Your task to perform on an android device: Search for seafood restaurants on Google Maps Image 0: 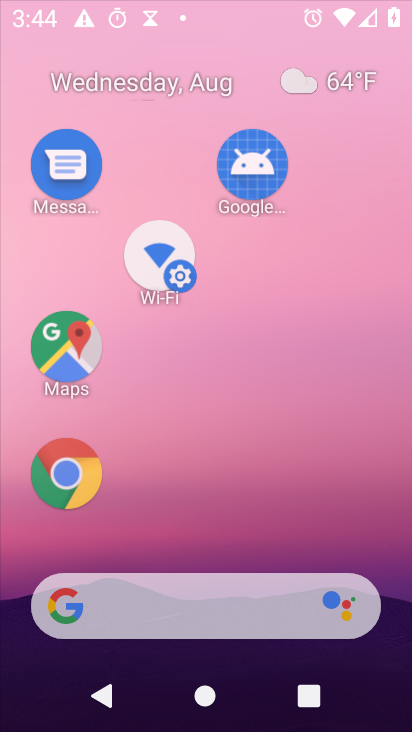
Step 0: press home button
Your task to perform on an android device: Search for seafood restaurants on Google Maps Image 1: 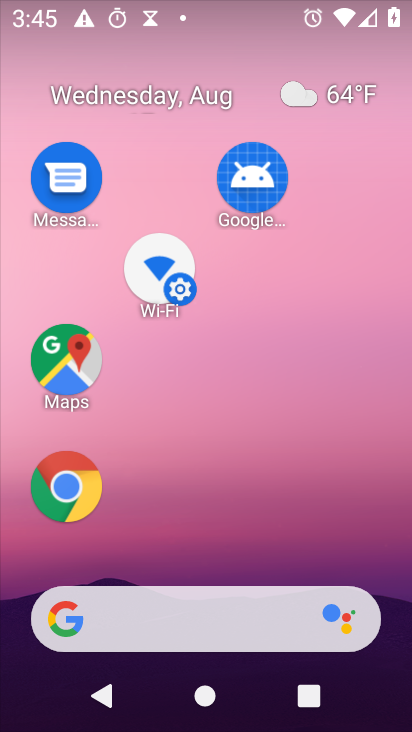
Step 1: click (53, 357)
Your task to perform on an android device: Search for seafood restaurants on Google Maps Image 2: 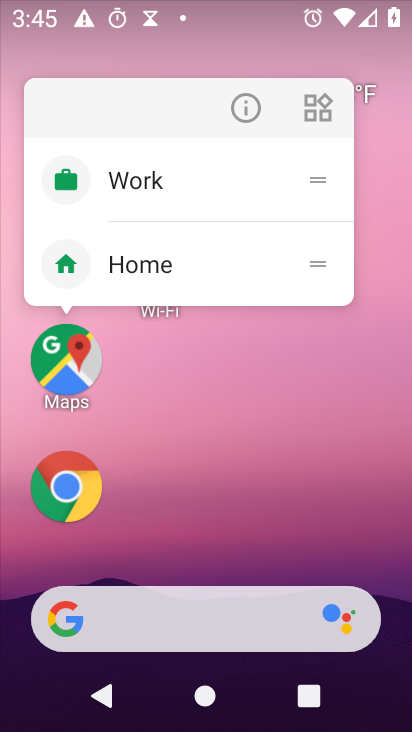
Step 2: click (57, 359)
Your task to perform on an android device: Search for seafood restaurants on Google Maps Image 3: 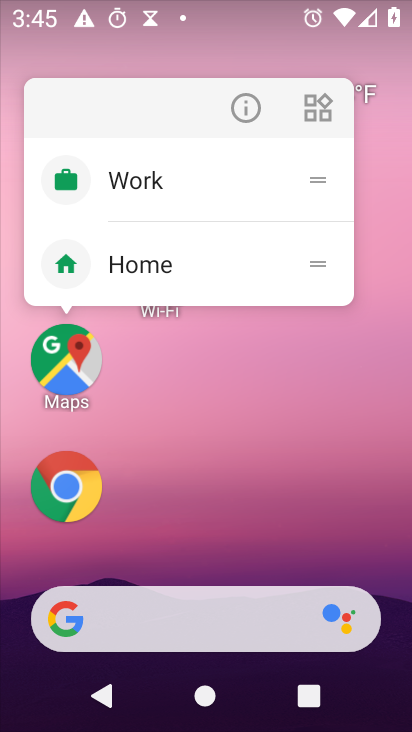
Step 3: click (57, 359)
Your task to perform on an android device: Search for seafood restaurants on Google Maps Image 4: 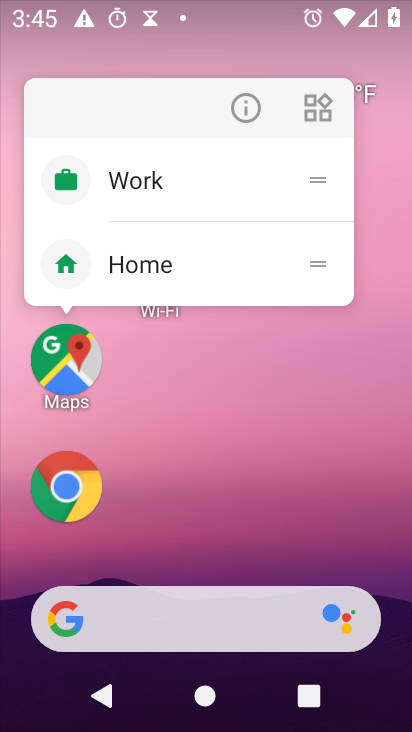
Step 4: click (66, 344)
Your task to perform on an android device: Search for seafood restaurants on Google Maps Image 5: 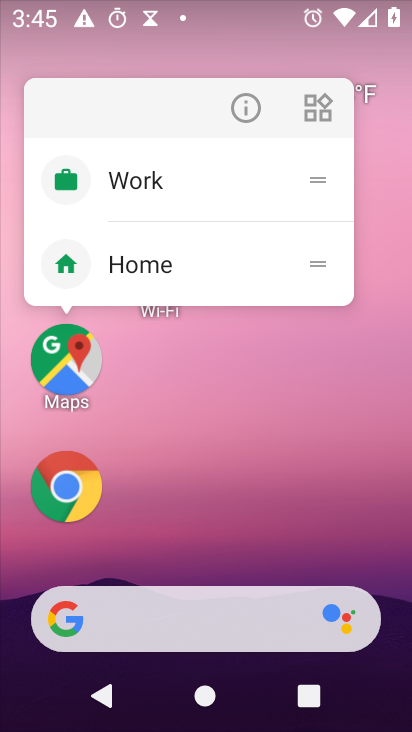
Step 5: click (66, 344)
Your task to perform on an android device: Search for seafood restaurants on Google Maps Image 6: 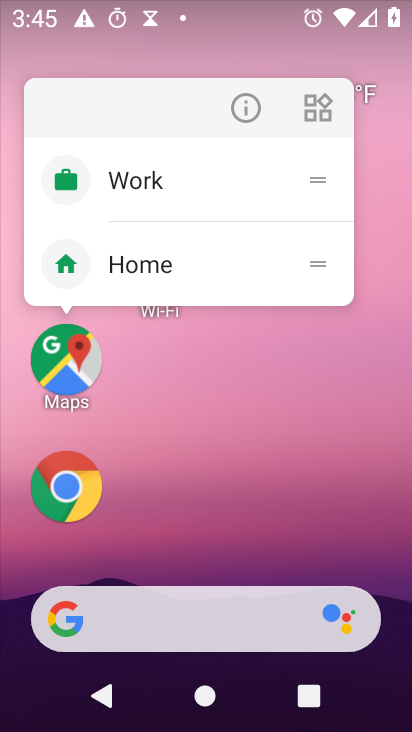
Step 6: click (60, 389)
Your task to perform on an android device: Search for seafood restaurants on Google Maps Image 7: 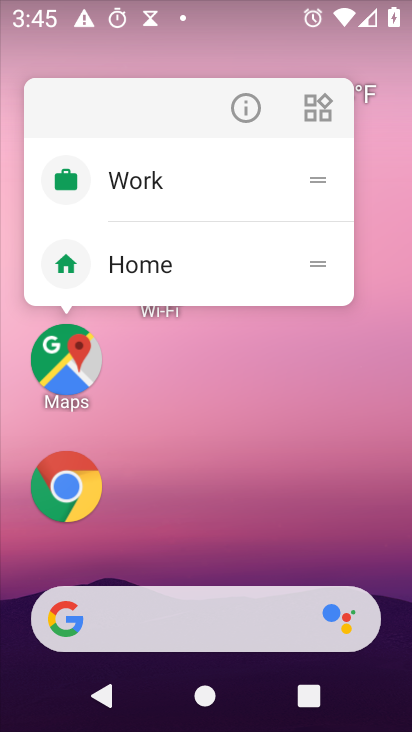
Step 7: click (60, 389)
Your task to perform on an android device: Search for seafood restaurants on Google Maps Image 8: 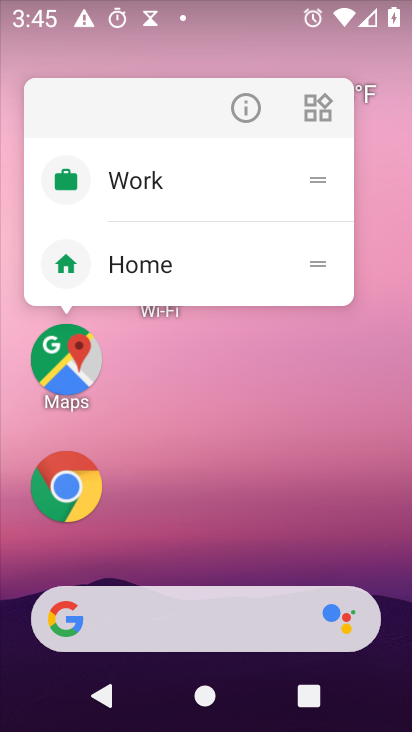
Step 8: click (60, 389)
Your task to perform on an android device: Search for seafood restaurants on Google Maps Image 9: 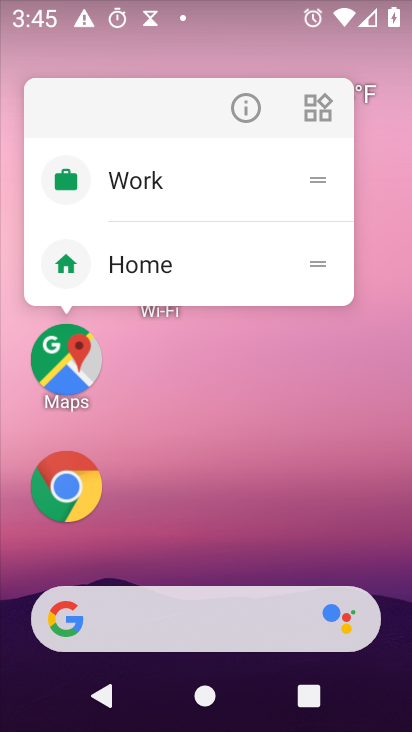
Step 9: click (60, 389)
Your task to perform on an android device: Search for seafood restaurants on Google Maps Image 10: 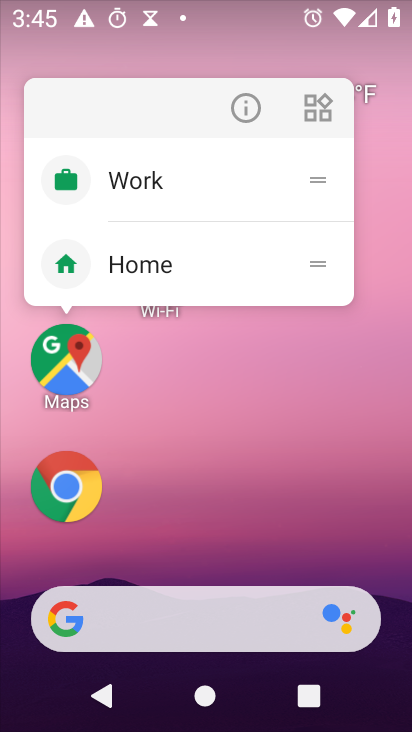
Step 10: click (81, 369)
Your task to perform on an android device: Search for seafood restaurants on Google Maps Image 11: 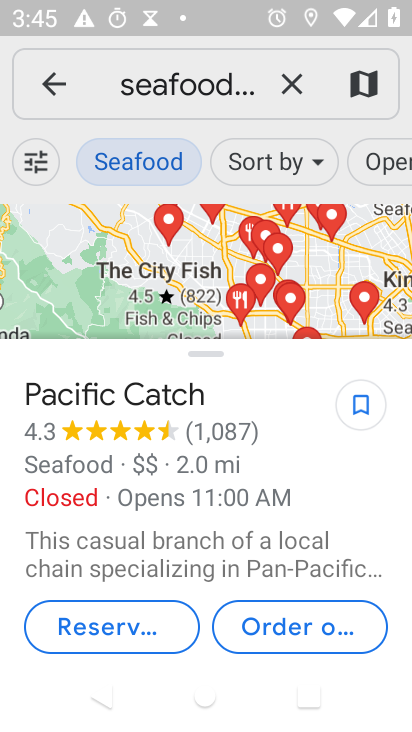
Step 11: task complete